Your task to perform on an android device: change notifications settings Image 0: 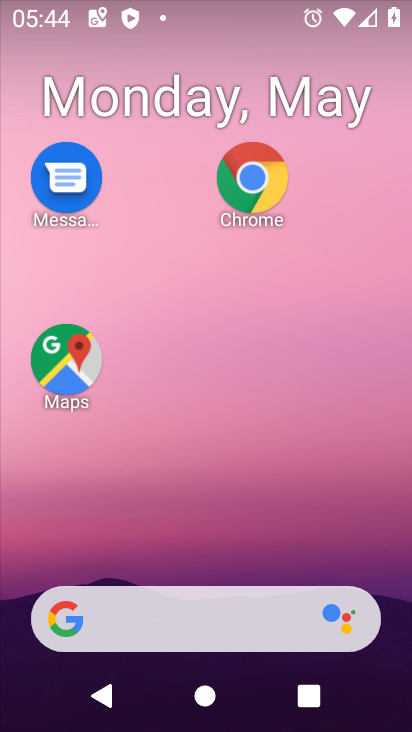
Step 0: drag from (211, 531) to (146, 68)
Your task to perform on an android device: change notifications settings Image 1: 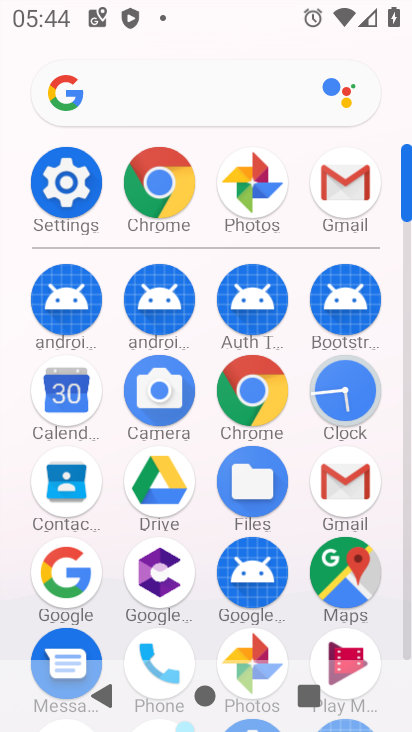
Step 1: click (42, 180)
Your task to perform on an android device: change notifications settings Image 2: 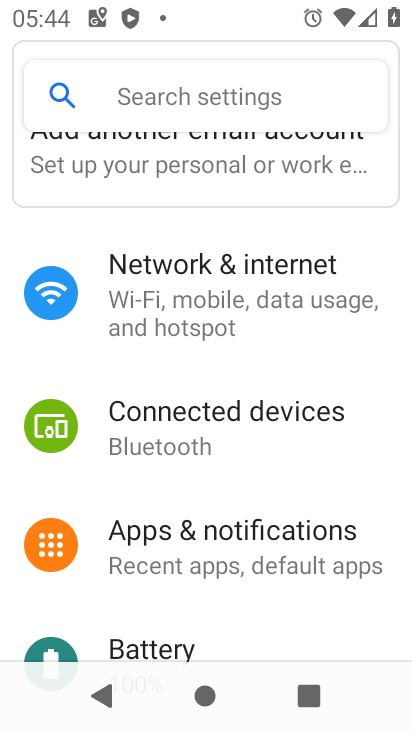
Step 2: click (258, 558)
Your task to perform on an android device: change notifications settings Image 3: 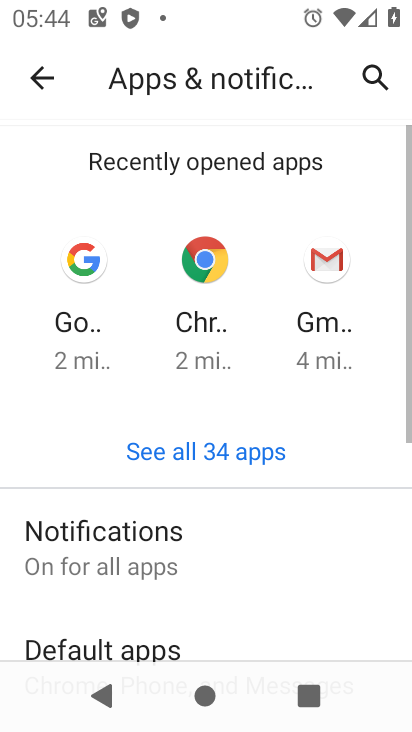
Step 3: click (147, 542)
Your task to perform on an android device: change notifications settings Image 4: 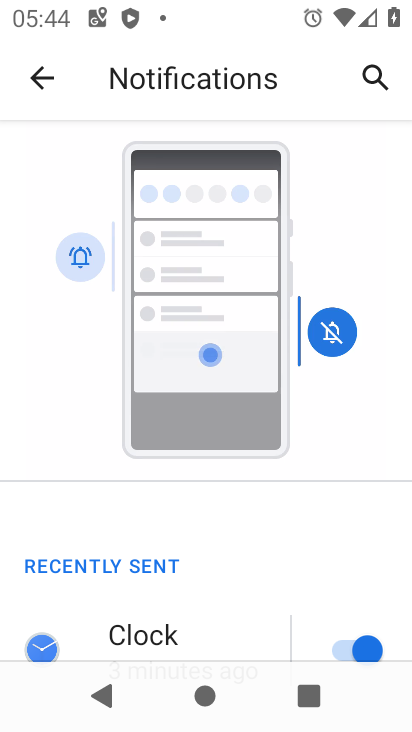
Step 4: drag from (321, 559) to (198, 219)
Your task to perform on an android device: change notifications settings Image 5: 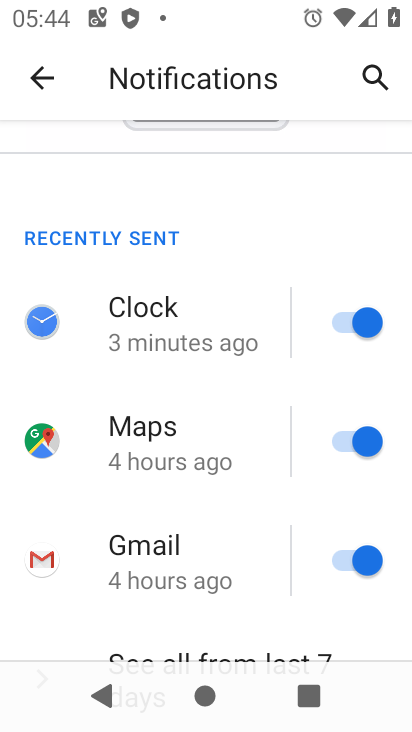
Step 5: drag from (235, 638) to (204, 218)
Your task to perform on an android device: change notifications settings Image 6: 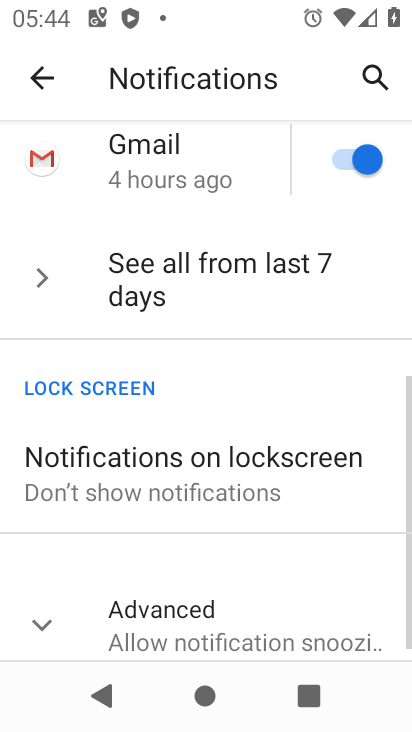
Step 6: drag from (160, 605) to (162, 316)
Your task to perform on an android device: change notifications settings Image 7: 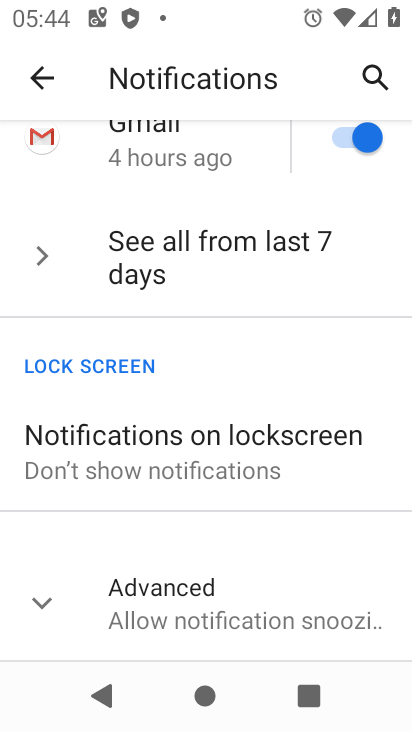
Step 7: click (132, 483)
Your task to perform on an android device: change notifications settings Image 8: 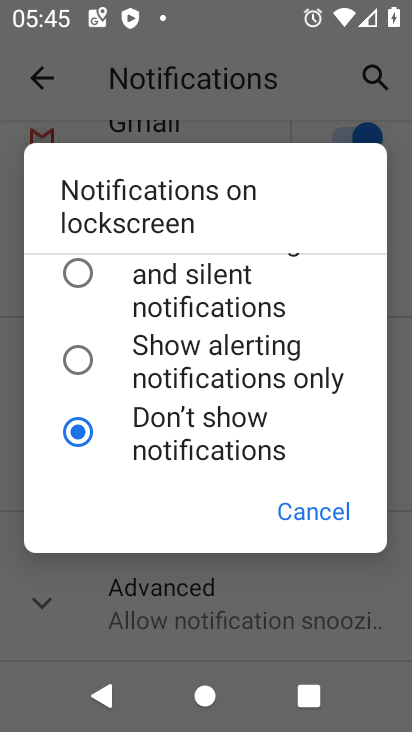
Step 8: click (88, 265)
Your task to perform on an android device: change notifications settings Image 9: 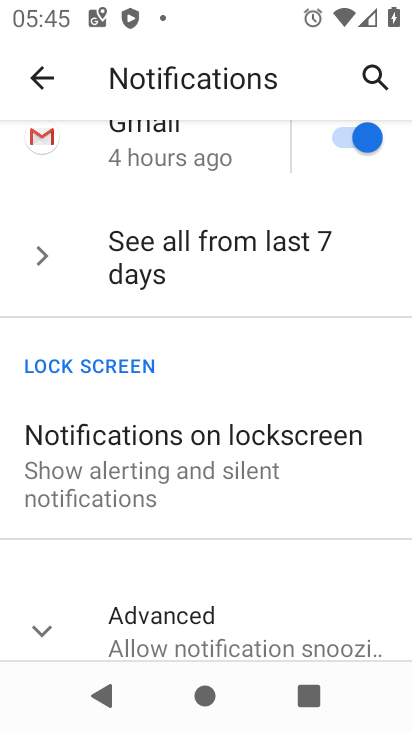
Step 9: task complete